Your task to perform on an android device: install app "Booking.com: Hotels and more" Image 0: 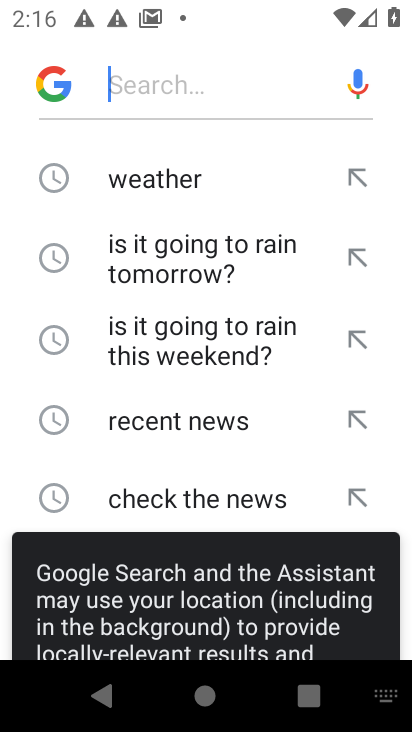
Step 0: press home button
Your task to perform on an android device: install app "Booking.com: Hotels and more" Image 1: 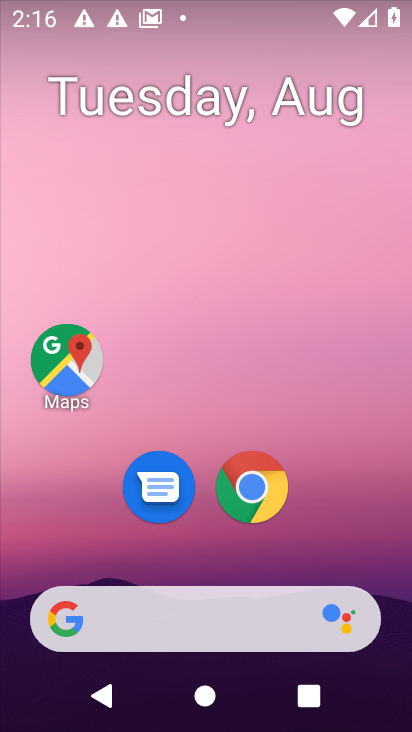
Step 1: drag from (167, 592) to (234, 49)
Your task to perform on an android device: install app "Booking.com: Hotels and more" Image 2: 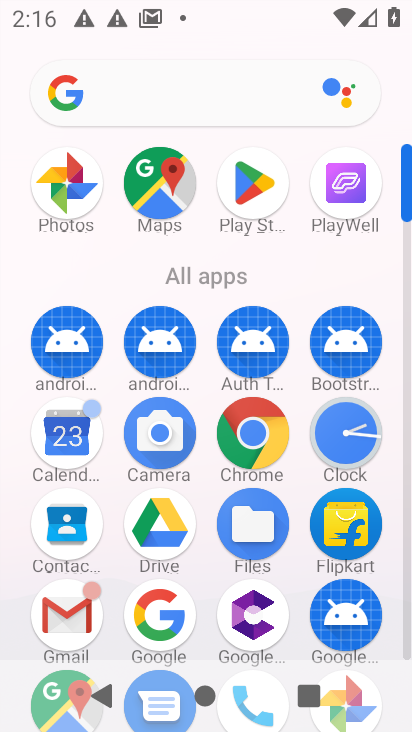
Step 2: click (257, 188)
Your task to perform on an android device: install app "Booking.com: Hotels and more" Image 3: 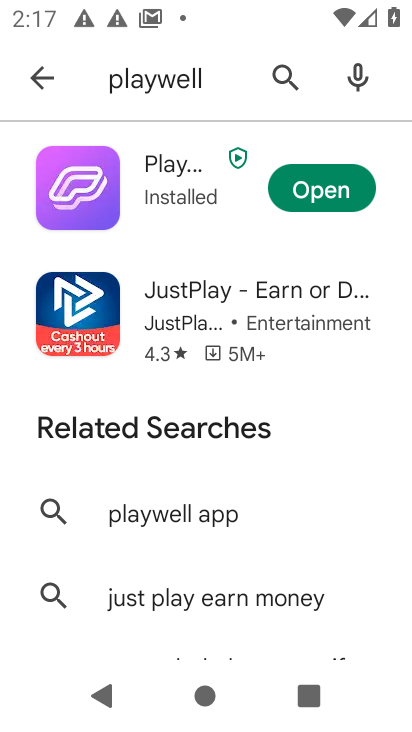
Step 3: press back button
Your task to perform on an android device: install app "Booking.com: Hotels and more" Image 4: 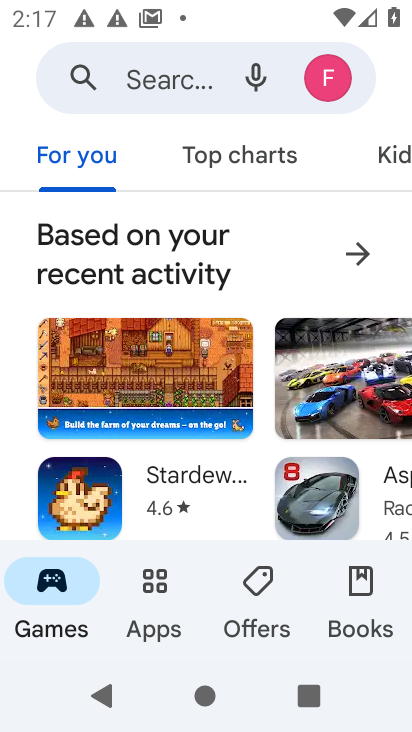
Step 4: click (159, 69)
Your task to perform on an android device: install app "Booking.com: Hotels and more" Image 5: 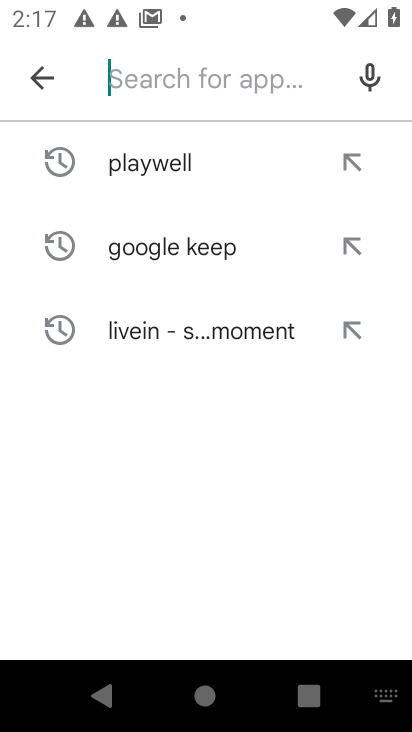
Step 5: type "Booking.com: Hotels and more"
Your task to perform on an android device: install app "Booking.com: Hotels and more" Image 6: 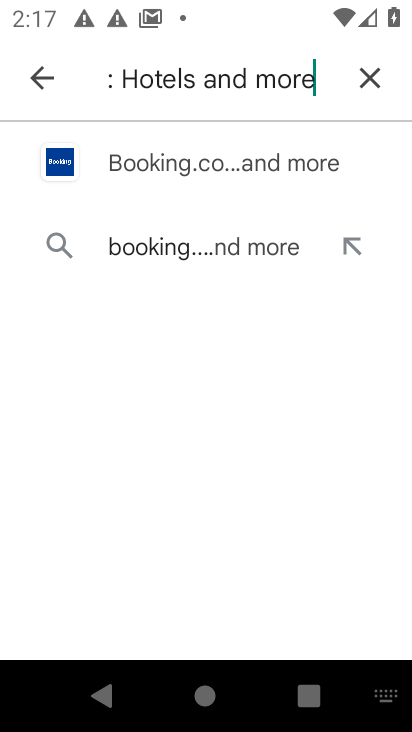
Step 6: click (303, 167)
Your task to perform on an android device: install app "Booking.com: Hotels and more" Image 7: 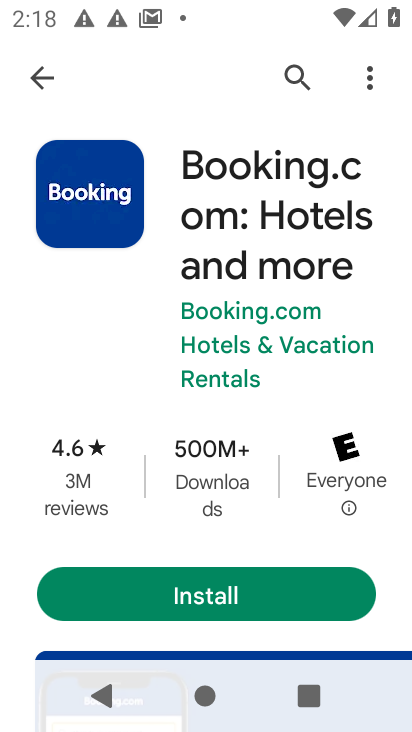
Step 7: click (201, 591)
Your task to perform on an android device: install app "Booking.com: Hotels and more" Image 8: 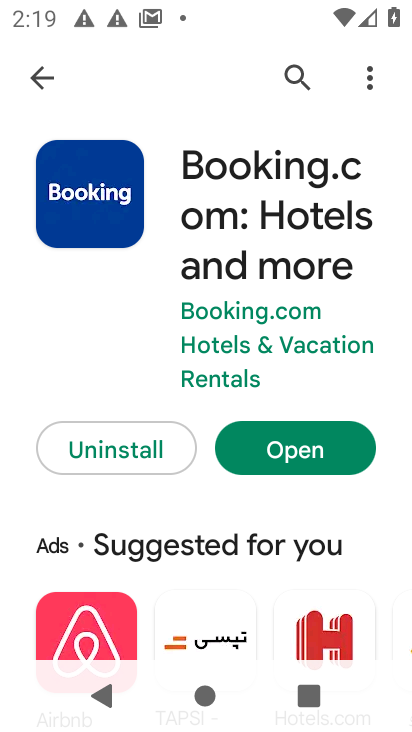
Step 8: task complete